Your task to perform on an android device: check out phone information Image 0: 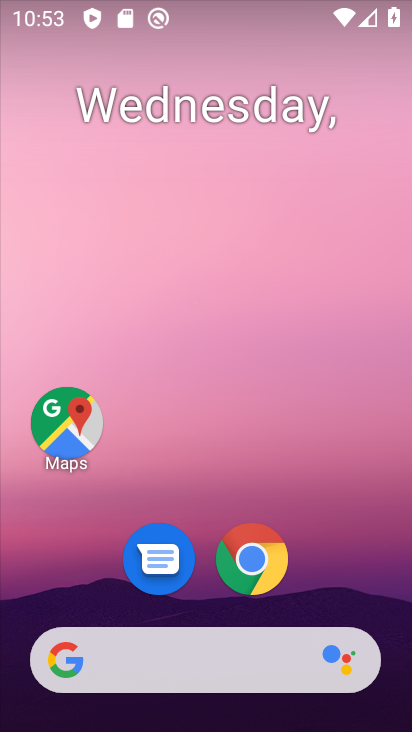
Step 0: drag from (221, 594) to (162, 5)
Your task to perform on an android device: check out phone information Image 1: 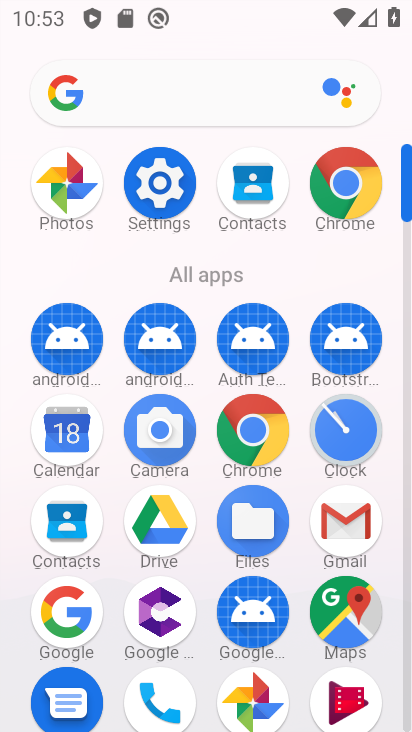
Step 1: click (156, 192)
Your task to perform on an android device: check out phone information Image 2: 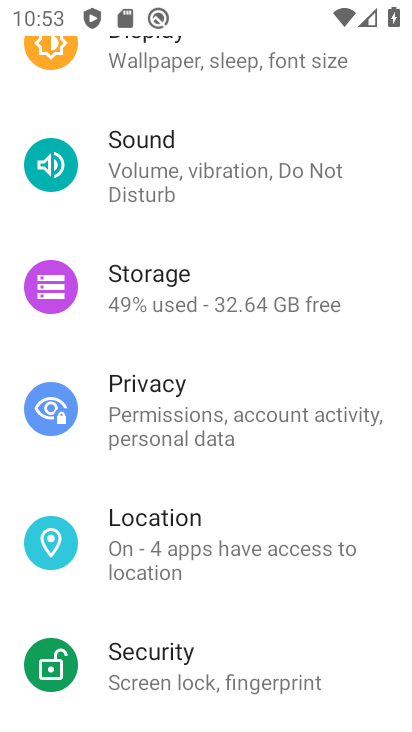
Step 2: task complete